Your task to perform on an android device: turn off smart reply in the gmail app Image 0: 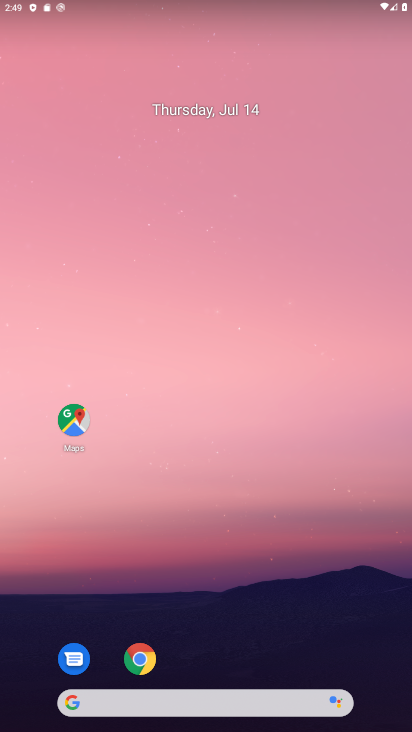
Step 0: drag from (238, 553) to (321, 137)
Your task to perform on an android device: turn off smart reply in the gmail app Image 1: 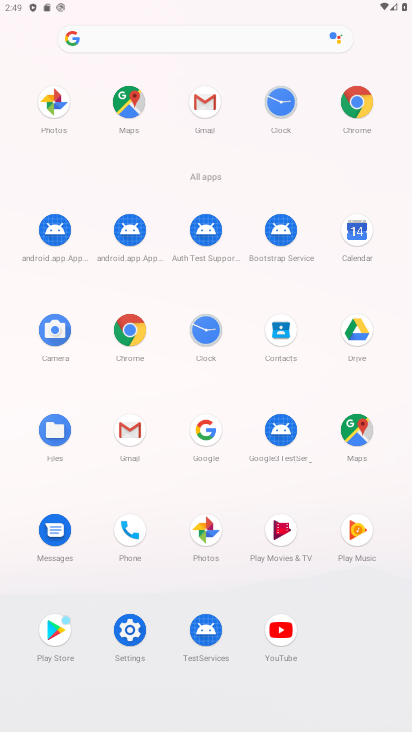
Step 1: click (135, 433)
Your task to perform on an android device: turn off smart reply in the gmail app Image 2: 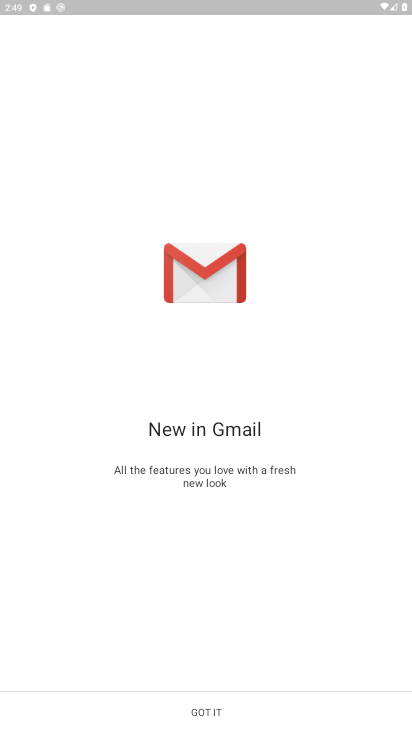
Step 2: click (218, 709)
Your task to perform on an android device: turn off smart reply in the gmail app Image 3: 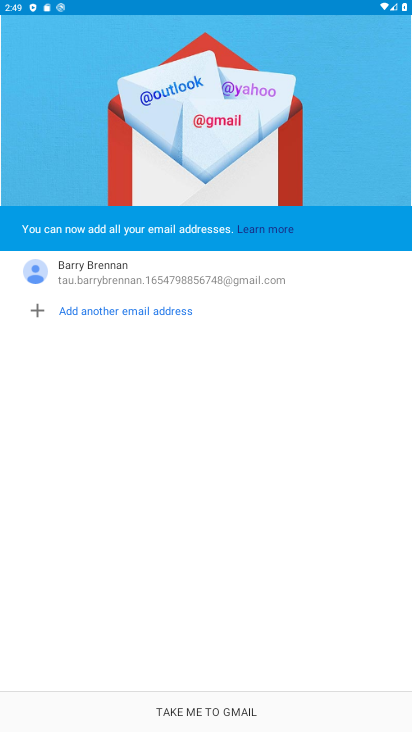
Step 3: click (217, 710)
Your task to perform on an android device: turn off smart reply in the gmail app Image 4: 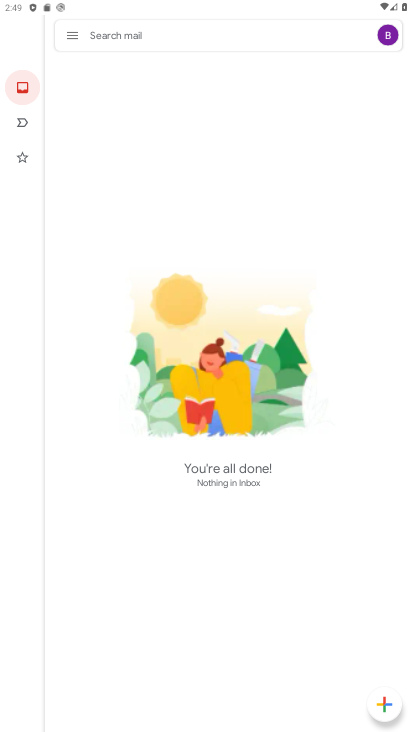
Step 4: click (72, 43)
Your task to perform on an android device: turn off smart reply in the gmail app Image 5: 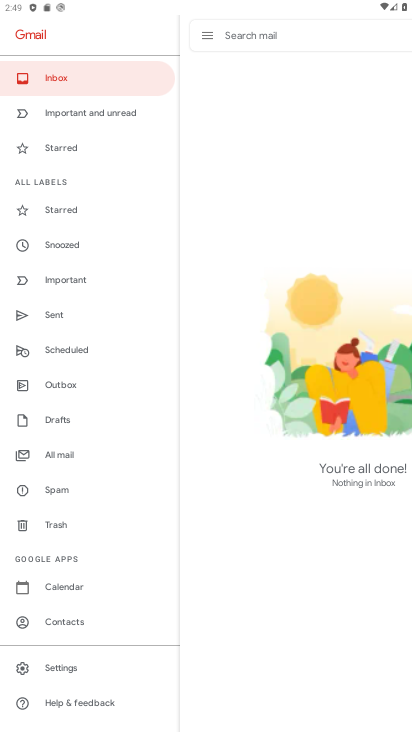
Step 5: click (79, 668)
Your task to perform on an android device: turn off smart reply in the gmail app Image 6: 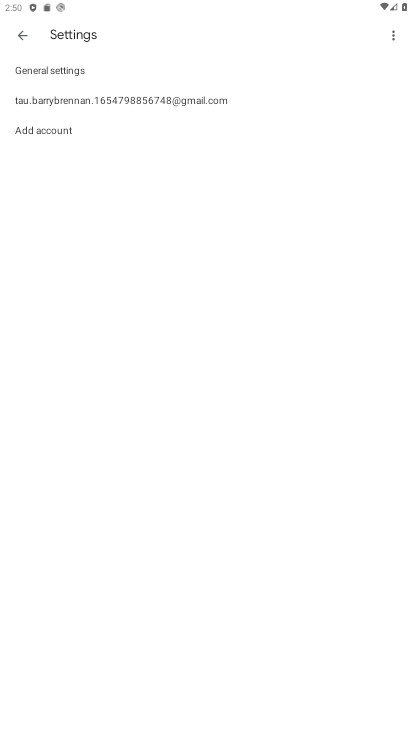
Step 6: click (213, 103)
Your task to perform on an android device: turn off smart reply in the gmail app Image 7: 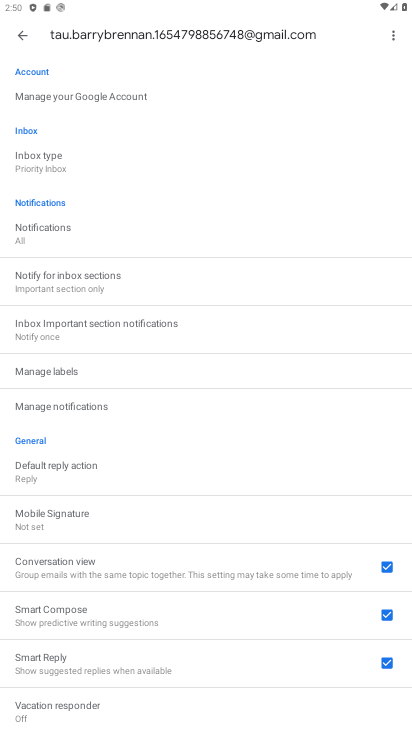
Step 7: click (389, 657)
Your task to perform on an android device: turn off smart reply in the gmail app Image 8: 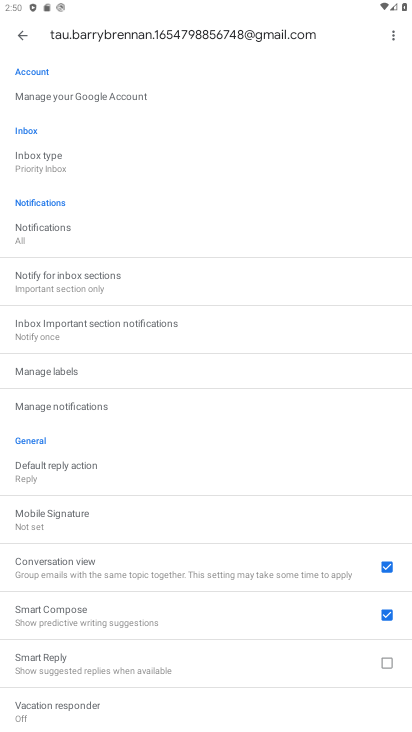
Step 8: task complete